Your task to perform on an android device: refresh tabs in the chrome app Image 0: 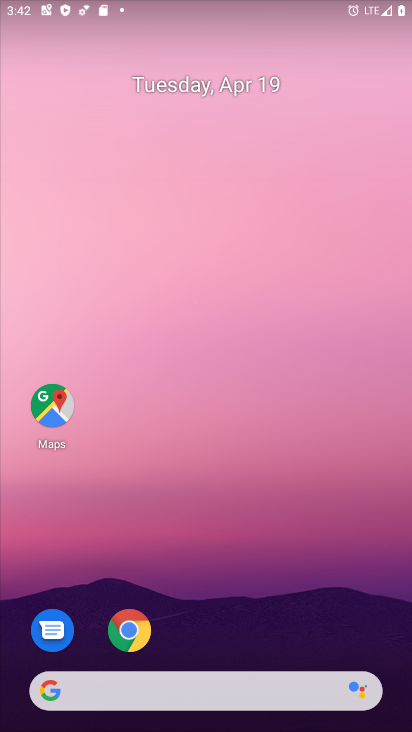
Step 0: click (128, 632)
Your task to perform on an android device: refresh tabs in the chrome app Image 1: 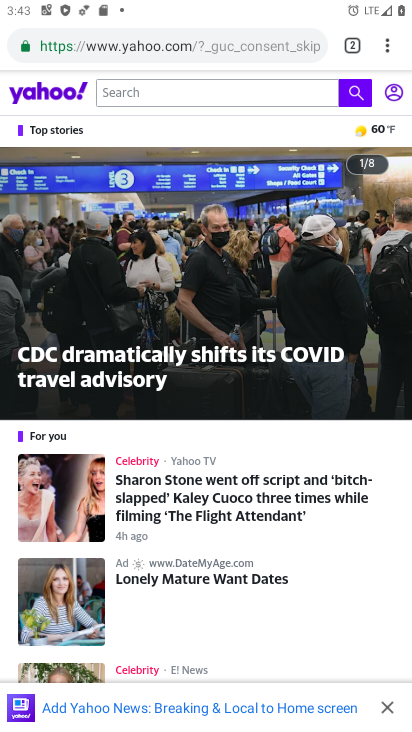
Step 1: click (383, 43)
Your task to perform on an android device: refresh tabs in the chrome app Image 2: 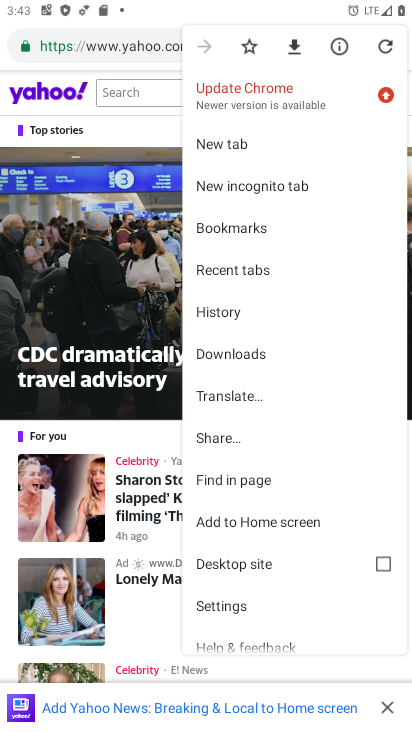
Step 2: click (384, 42)
Your task to perform on an android device: refresh tabs in the chrome app Image 3: 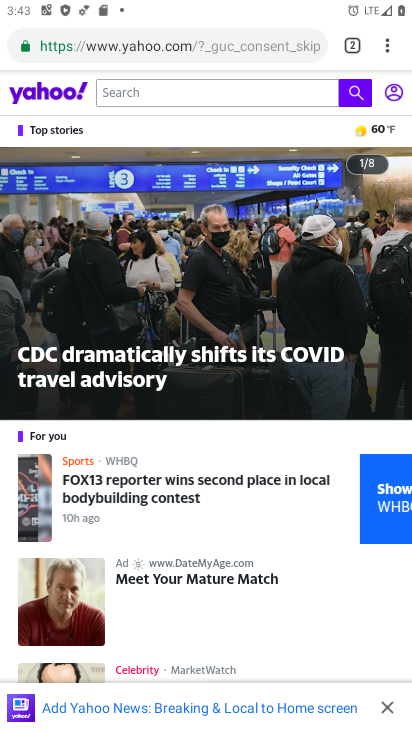
Step 3: task complete